Your task to perform on an android device: turn on data saver in the chrome app Image 0: 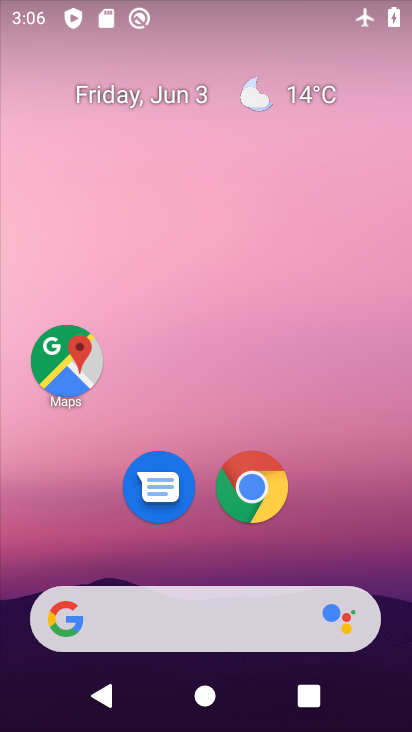
Step 0: drag from (204, 520) to (245, 11)
Your task to perform on an android device: turn on data saver in the chrome app Image 1: 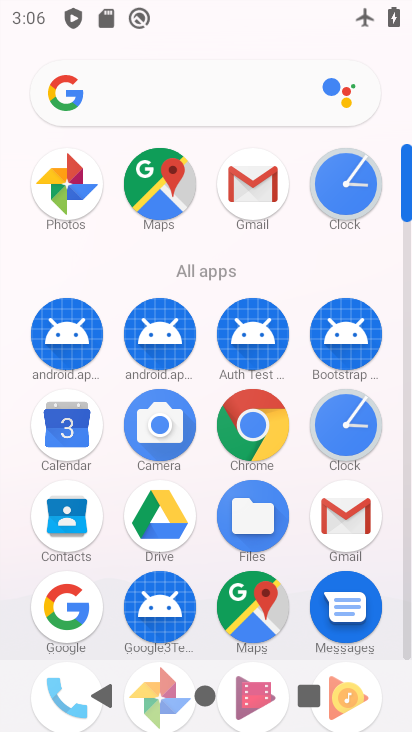
Step 1: drag from (180, 621) to (250, 72)
Your task to perform on an android device: turn on data saver in the chrome app Image 2: 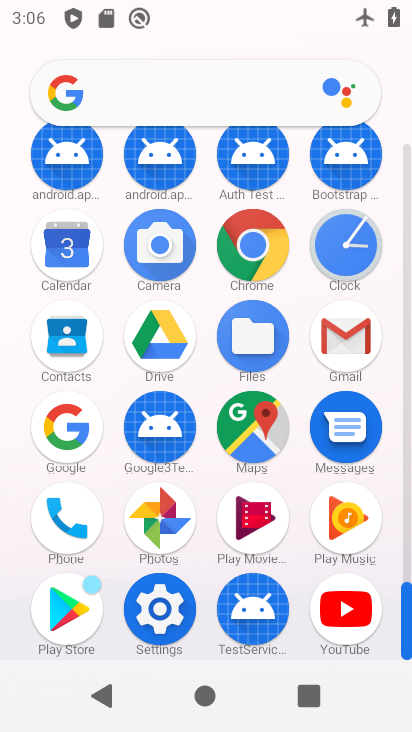
Step 2: click (152, 608)
Your task to perform on an android device: turn on data saver in the chrome app Image 3: 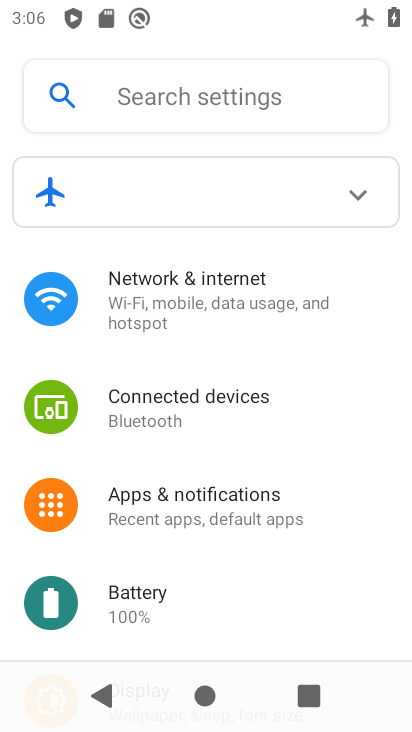
Step 3: press back button
Your task to perform on an android device: turn on data saver in the chrome app Image 4: 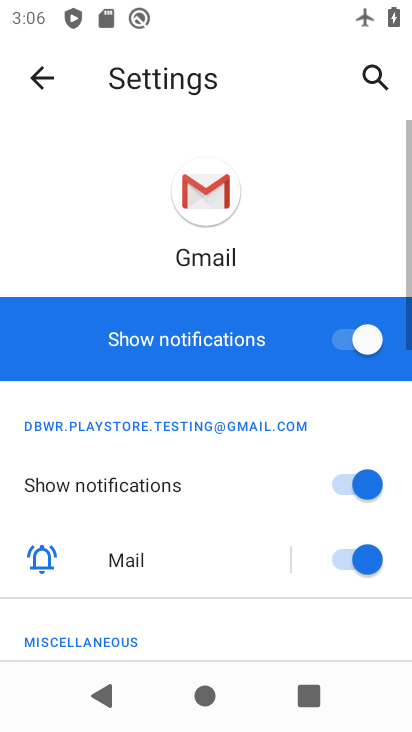
Step 4: press back button
Your task to perform on an android device: turn on data saver in the chrome app Image 5: 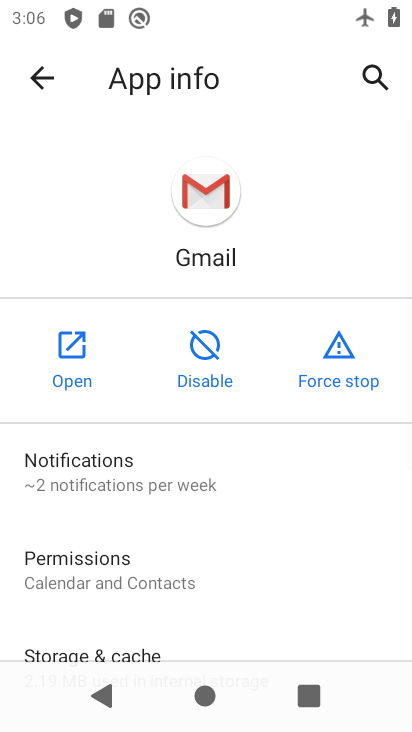
Step 5: press back button
Your task to perform on an android device: turn on data saver in the chrome app Image 6: 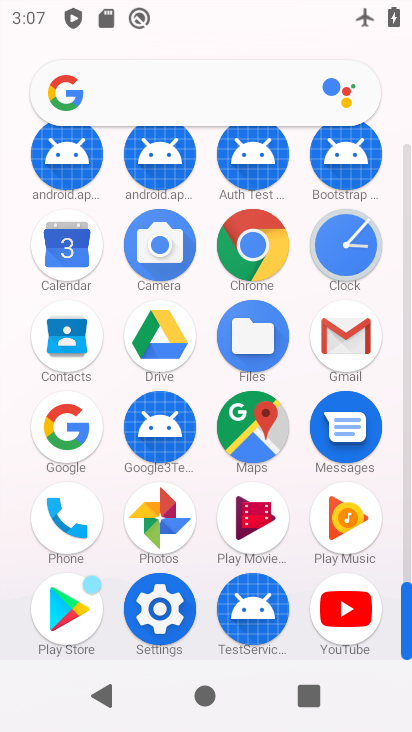
Step 6: click (251, 228)
Your task to perform on an android device: turn on data saver in the chrome app Image 7: 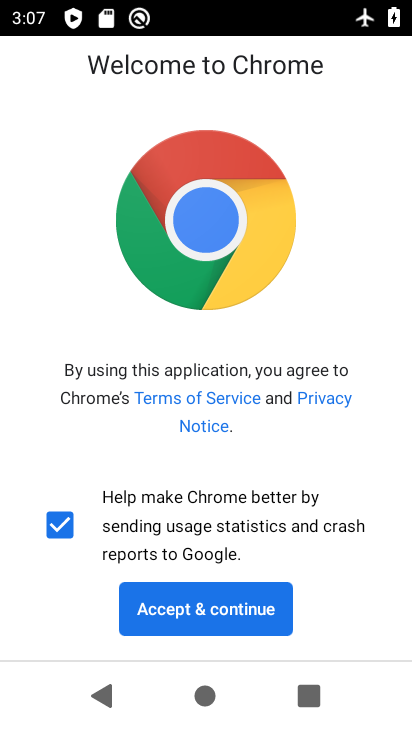
Step 7: click (189, 594)
Your task to perform on an android device: turn on data saver in the chrome app Image 8: 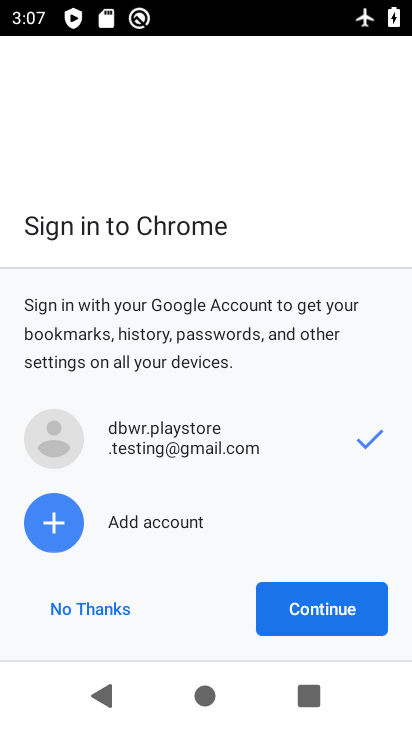
Step 8: click (319, 604)
Your task to perform on an android device: turn on data saver in the chrome app Image 9: 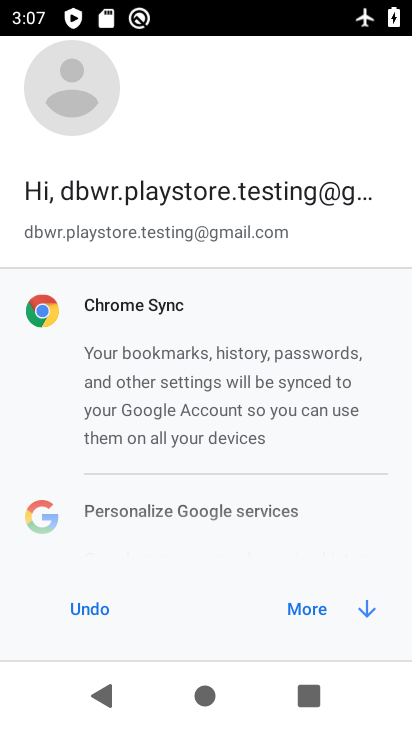
Step 9: click (321, 603)
Your task to perform on an android device: turn on data saver in the chrome app Image 10: 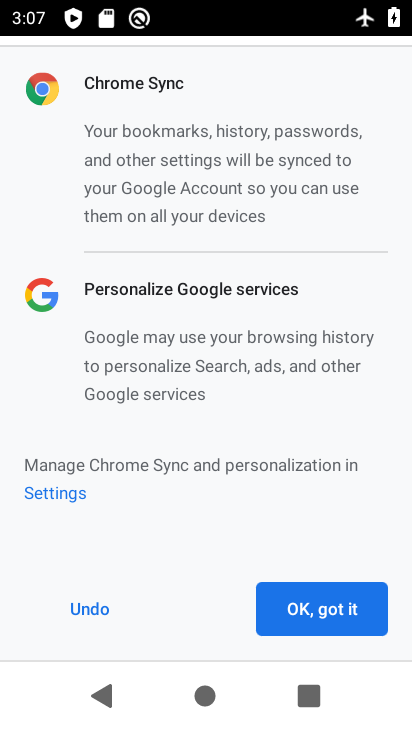
Step 10: click (321, 603)
Your task to perform on an android device: turn on data saver in the chrome app Image 11: 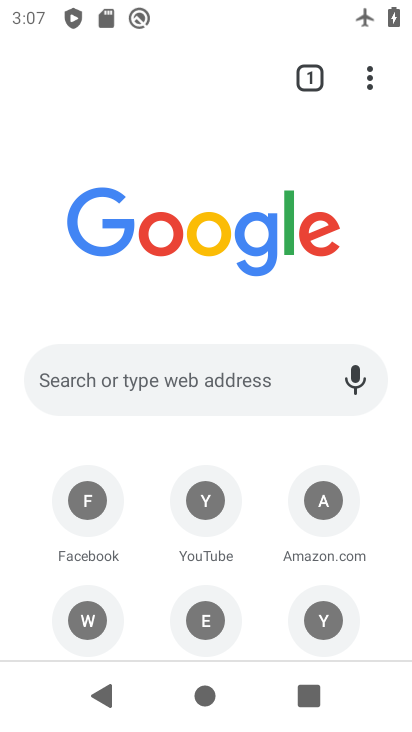
Step 11: drag from (362, 75) to (123, 539)
Your task to perform on an android device: turn on data saver in the chrome app Image 12: 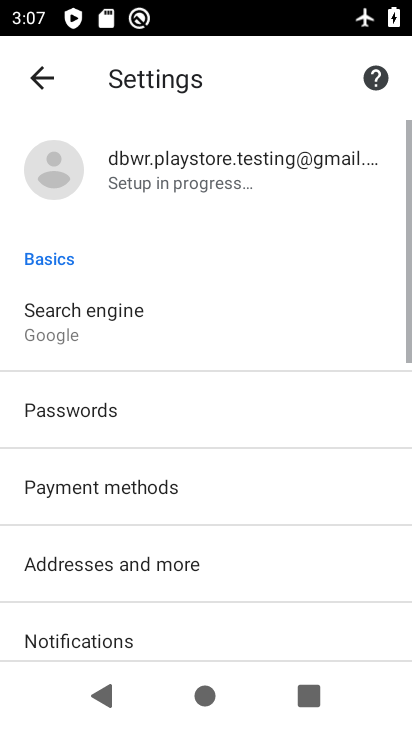
Step 12: drag from (121, 617) to (210, 125)
Your task to perform on an android device: turn on data saver in the chrome app Image 13: 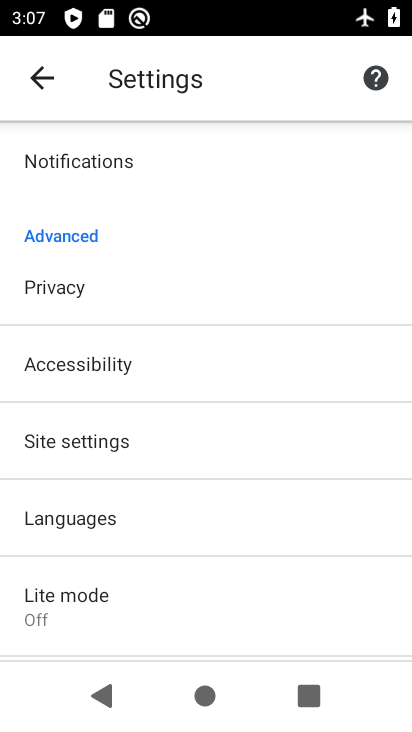
Step 13: click (76, 603)
Your task to perform on an android device: turn on data saver in the chrome app Image 14: 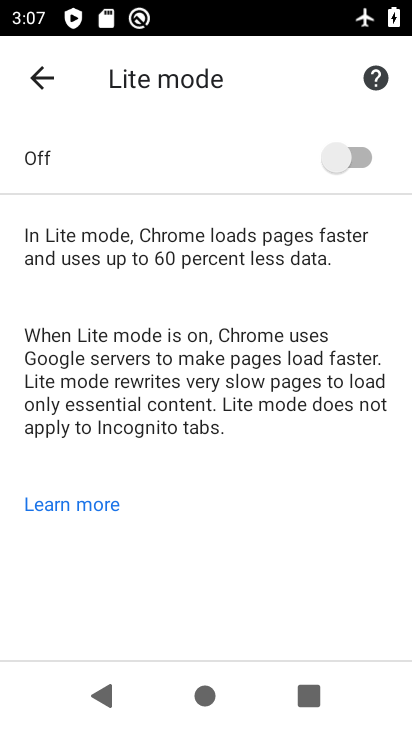
Step 14: click (354, 164)
Your task to perform on an android device: turn on data saver in the chrome app Image 15: 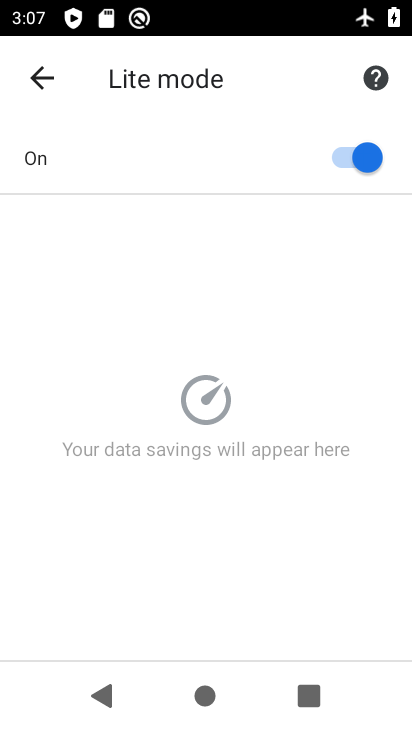
Step 15: task complete